Your task to perform on an android device: turn off picture-in-picture Image 0: 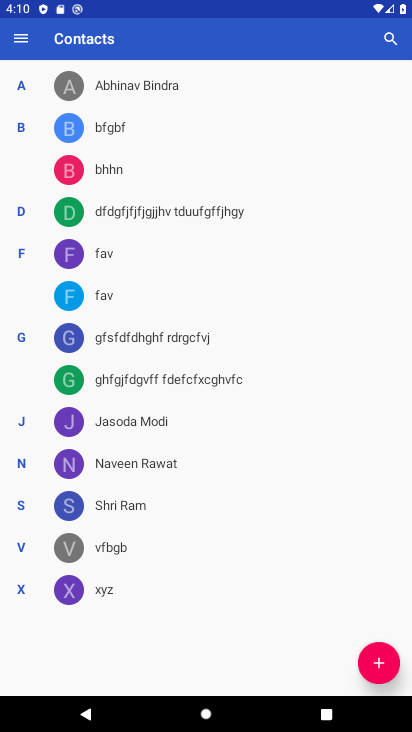
Step 0: press home button
Your task to perform on an android device: turn off picture-in-picture Image 1: 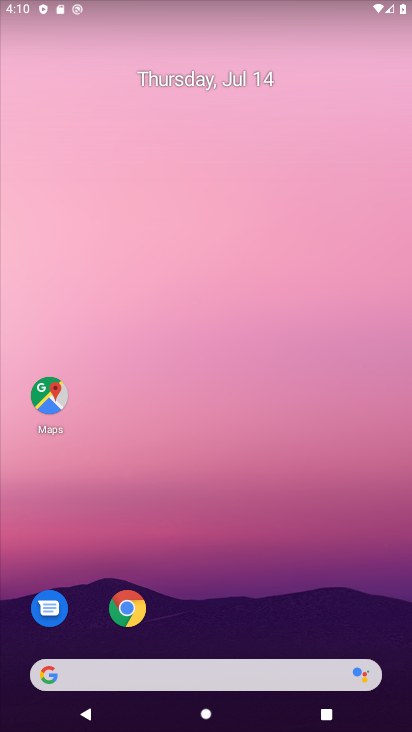
Step 1: drag from (239, 549) to (325, 125)
Your task to perform on an android device: turn off picture-in-picture Image 2: 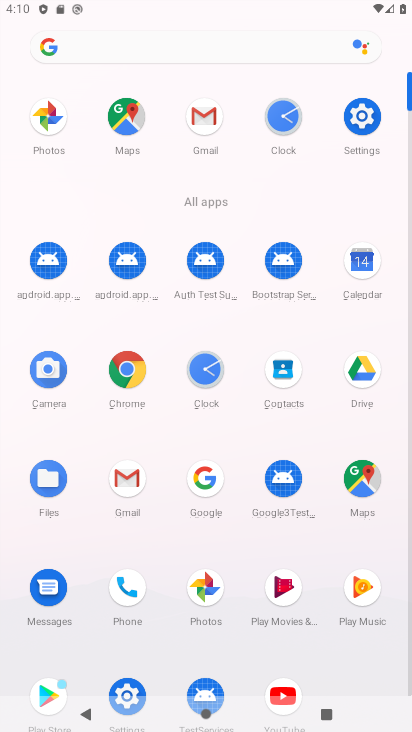
Step 2: click (121, 686)
Your task to perform on an android device: turn off picture-in-picture Image 3: 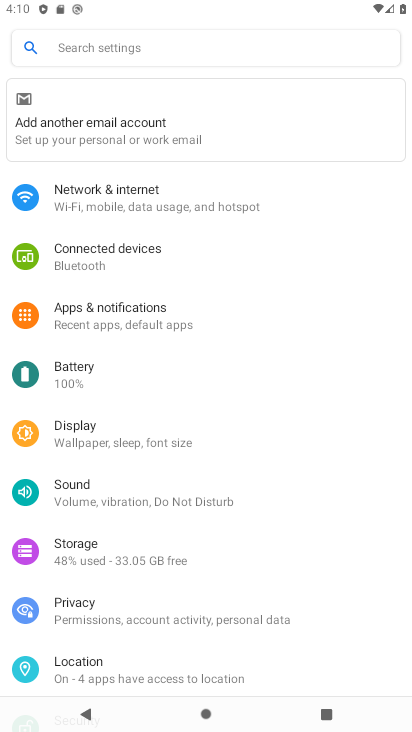
Step 3: click (126, 335)
Your task to perform on an android device: turn off picture-in-picture Image 4: 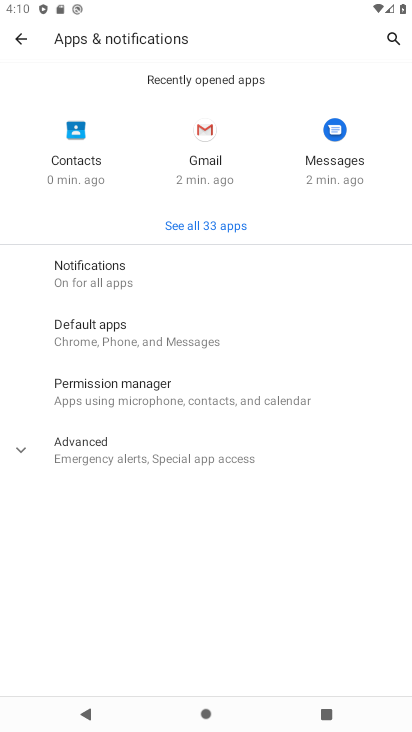
Step 4: click (166, 443)
Your task to perform on an android device: turn off picture-in-picture Image 5: 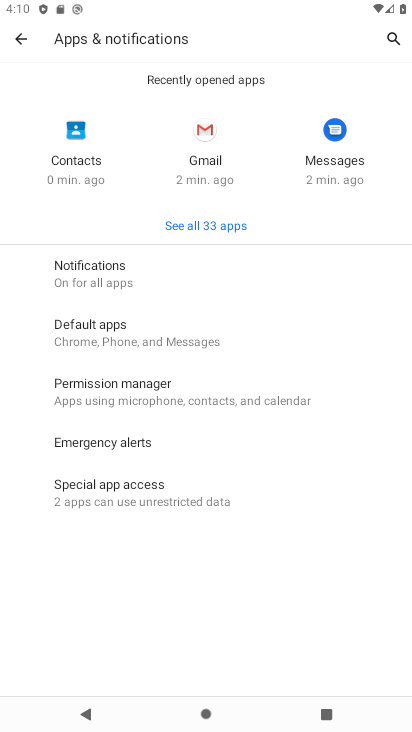
Step 5: click (231, 489)
Your task to perform on an android device: turn off picture-in-picture Image 6: 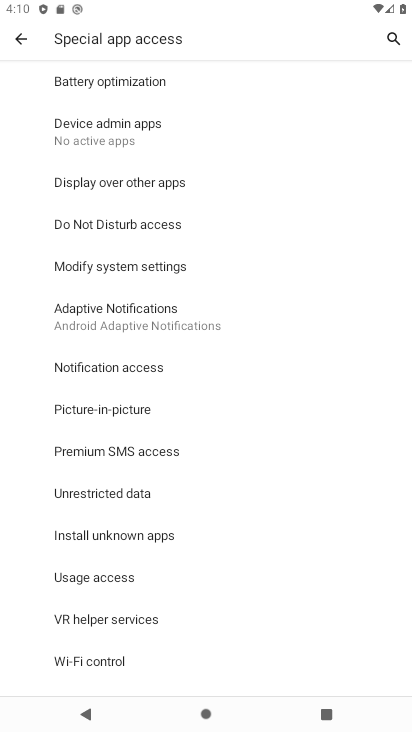
Step 6: click (214, 410)
Your task to perform on an android device: turn off picture-in-picture Image 7: 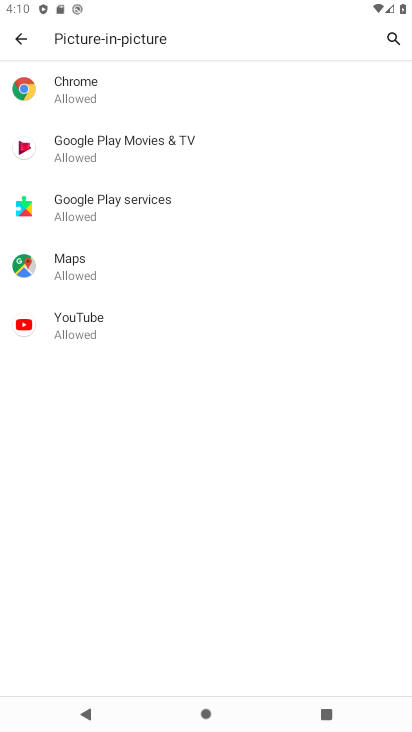
Step 7: click (181, 92)
Your task to perform on an android device: turn off picture-in-picture Image 8: 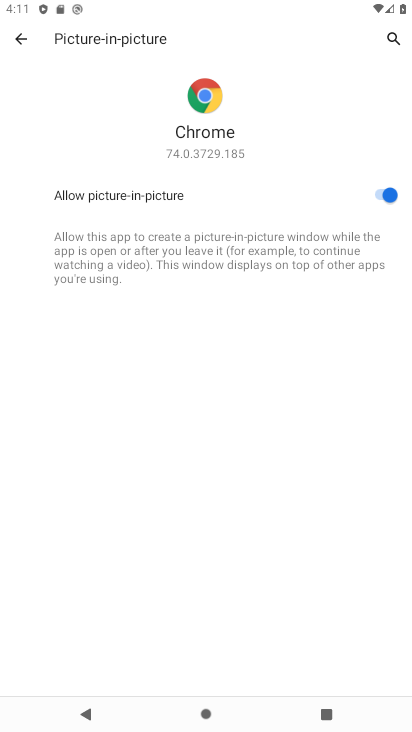
Step 8: click (376, 193)
Your task to perform on an android device: turn off picture-in-picture Image 9: 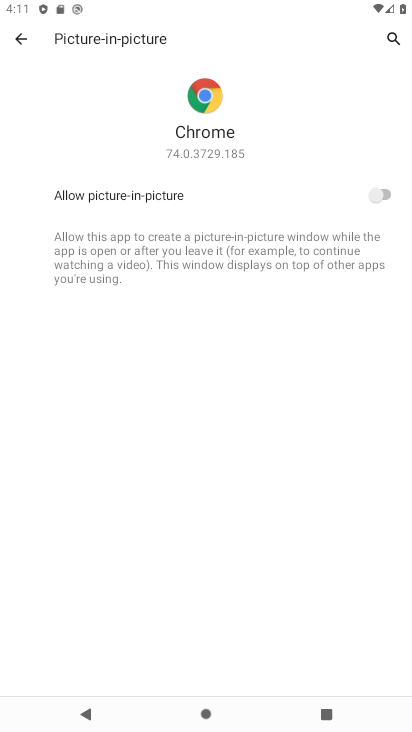
Step 9: press back button
Your task to perform on an android device: turn off picture-in-picture Image 10: 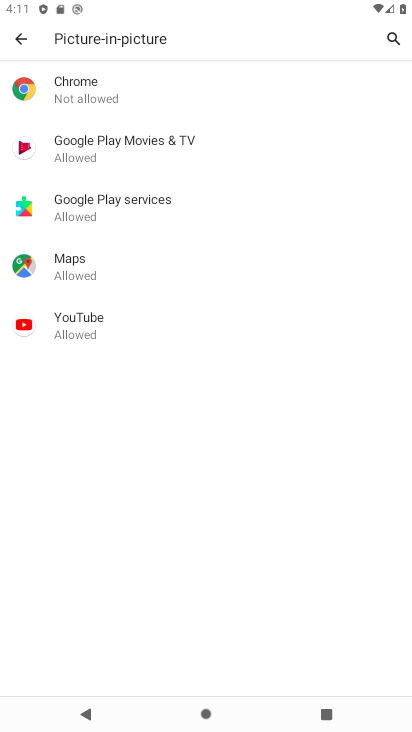
Step 10: click (205, 147)
Your task to perform on an android device: turn off picture-in-picture Image 11: 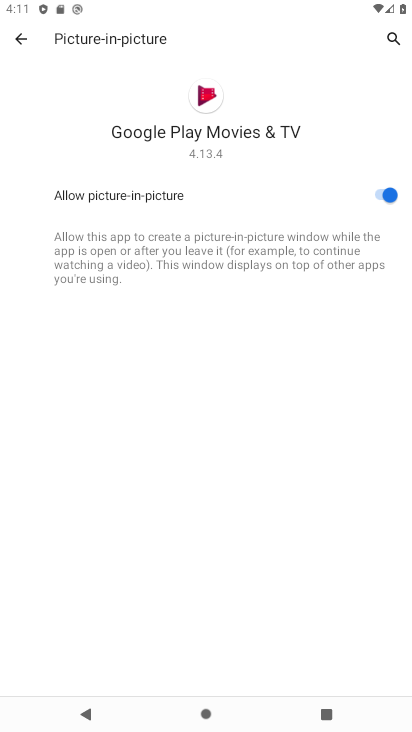
Step 11: click (383, 184)
Your task to perform on an android device: turn off picture-in-picture Image 12: 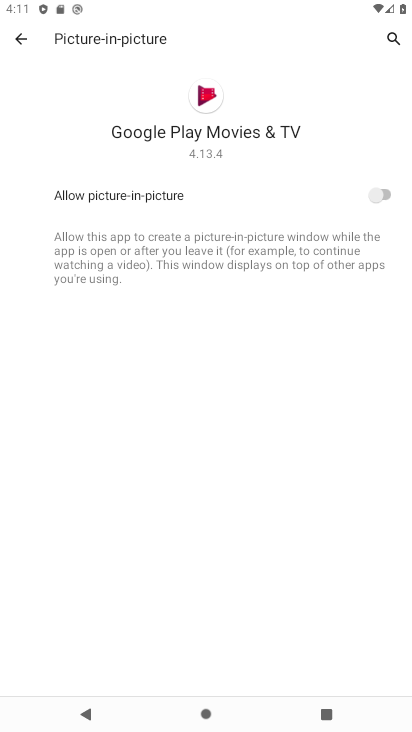
Step 12: press back button
Your task to perform on an android device: turn off picture-in-picture Image 13: 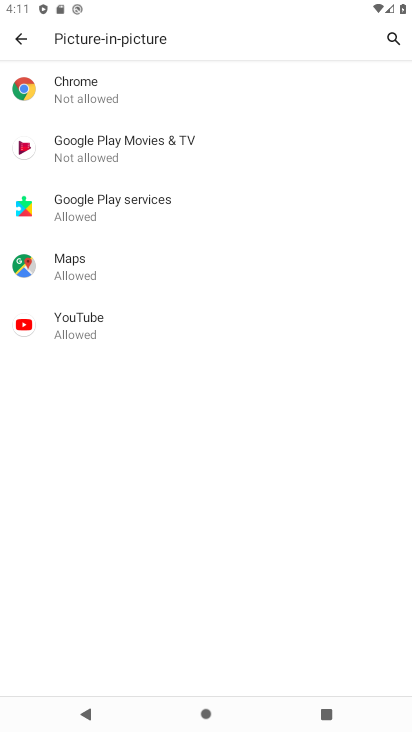
Step 13: click (198, 209)
Your task to perform on an android device: turn off picture-in-picture Image 14: 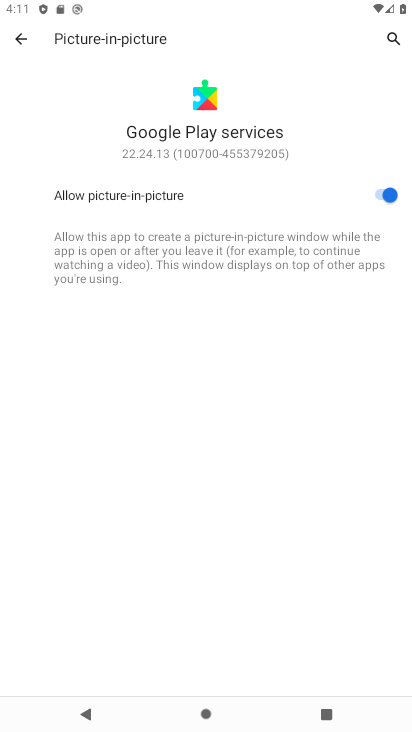
Step 14: click (388, 198)
Your task to perform on an android device: turn off picture-in-picture Image 15: 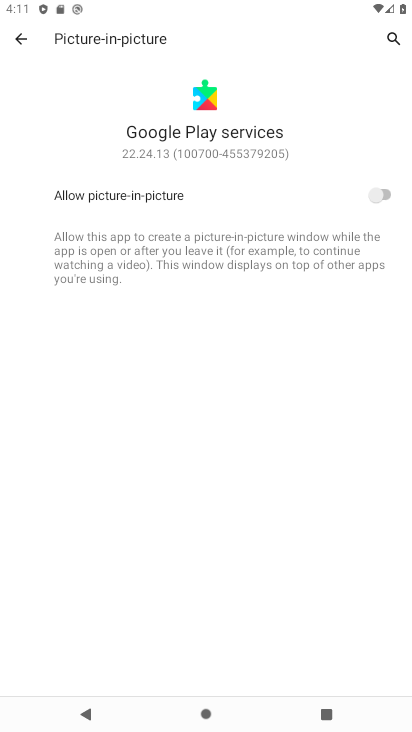
Step 15: press back button
Your task to perform on an android device: turn off picture-in-picture Image 16: 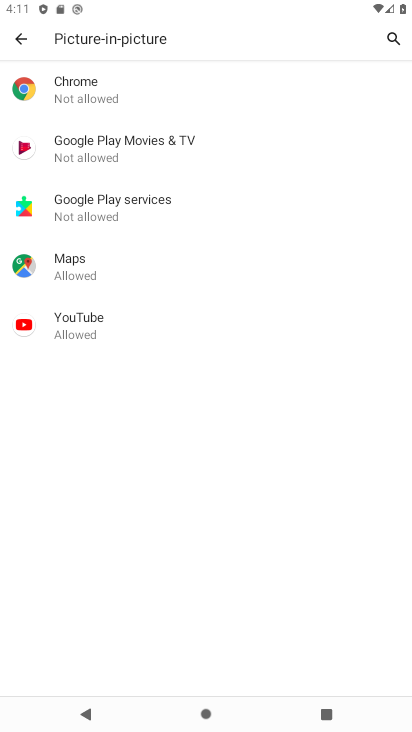
Step 16: click (81, 256)
Your task to perform on an android device: turn off picture-in-picture Image 17: 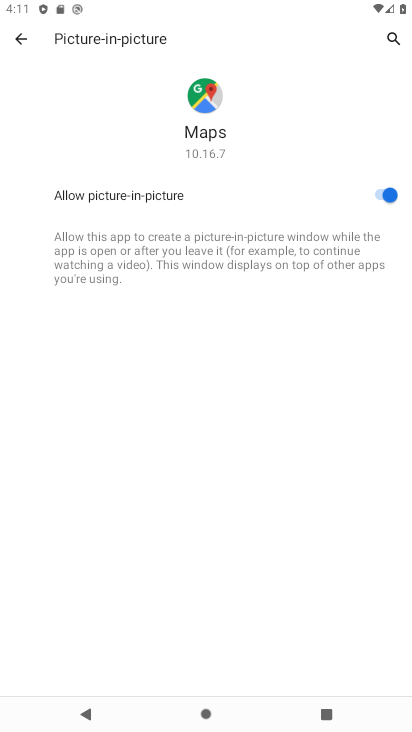
Step 17: click (386, 189)
Your task to perform on an android device: turn off picture-in-picture Image 18: 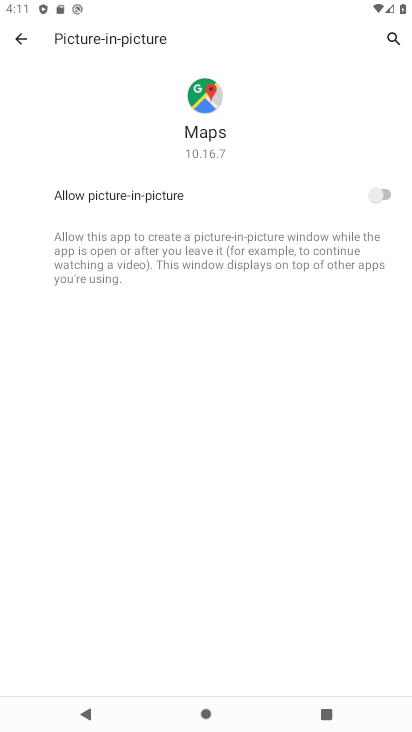
Step 18: press back button
Your task to perform on an android device: turn off picture-in-picture Image 19: 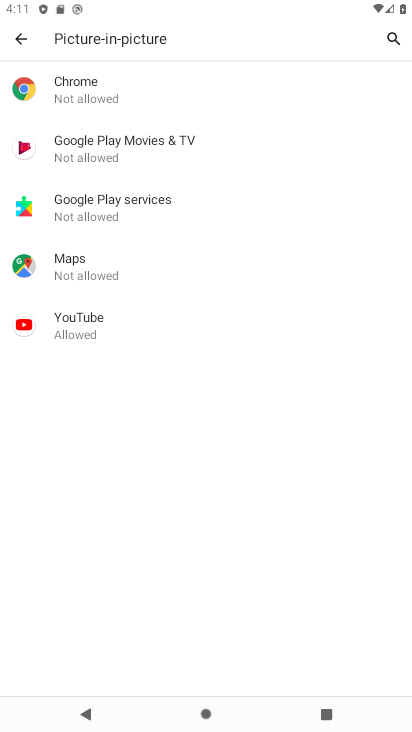
Step 19: click (191, 309)
Your task to perform on an android device: turn off picture-in-picture Image 20: 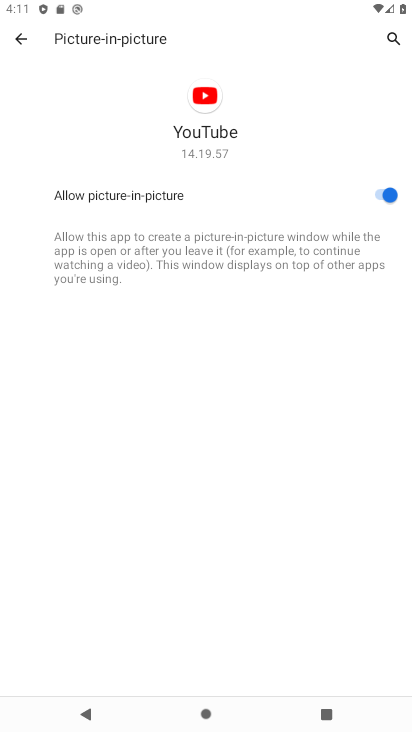
Step 20: click (371, 190)
Your task to perform on an android device: turn off picture-in-picture Image 21: 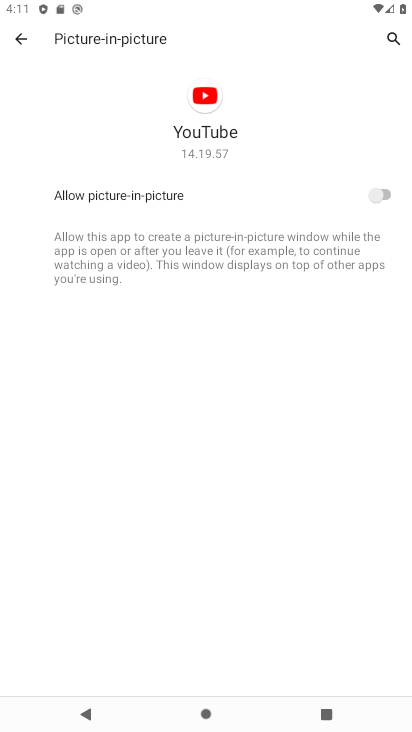
Step 21: task complete